Your task to perform on an android device: uninstall "Life360: Find Family & Friends" Image 0: 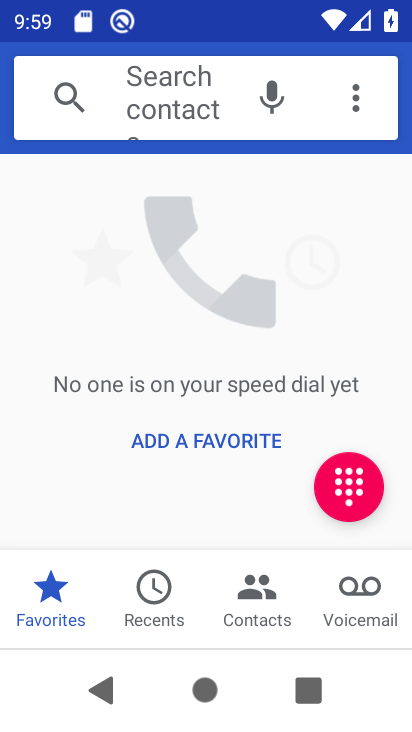
Step 0: press home button
Your task to perform on an android device: uninstall "Life360: Find Family & Friends" Image 1: 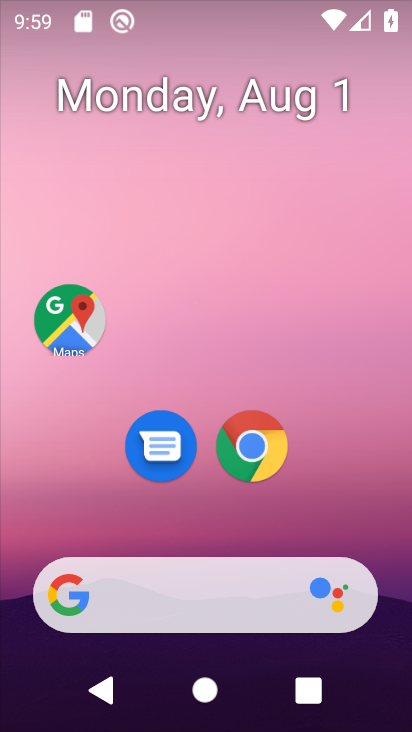
Step 1: drag from (206, 516) to (228, 61)
Your task to perform on an android device: uninstall "Life360: Find Family & Friends" Image 2: 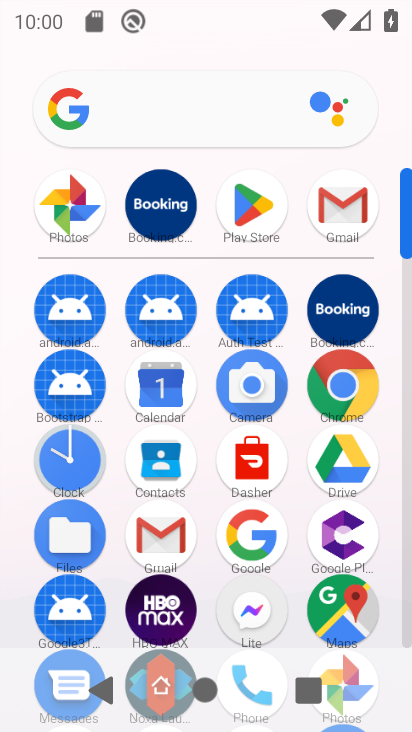
Step 2: click (248, 178)
Your task to perform on an android device: uninstall "Life360: Find Family & Friends" Image 3: 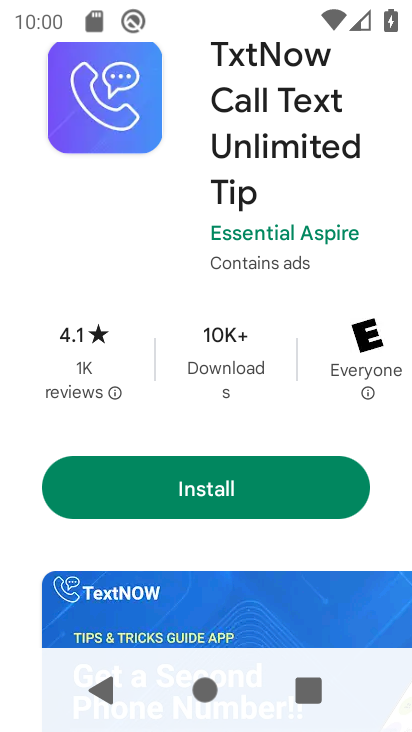
Step 3: drag from (264, 236) to (316, 583)
Your task to perform on an android device: uninstall "Life360: Find Family & Friends" Image 4: 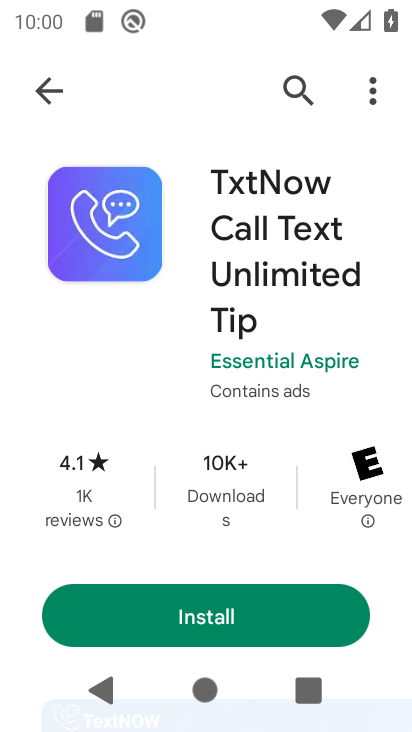
Step 4: click (300, 99)
Your task to perform on an android device: uninstall "Life360: Find Family & Friends" Image 5: 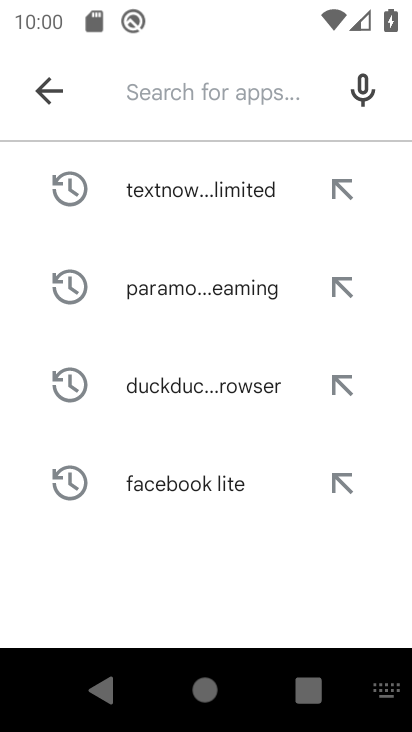
Step 5: type "Life360: Find Family & Friends"
Your task to perform on an android device: uninstall "Life360: Find Family & Friends" Image 6: 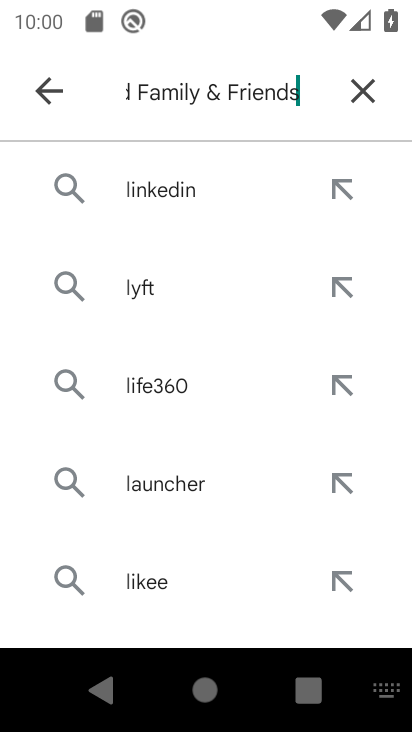
Step 6: type ""
Your task to perform on an android device: uninstall "Life360: Find Family & Friends" Image 7: 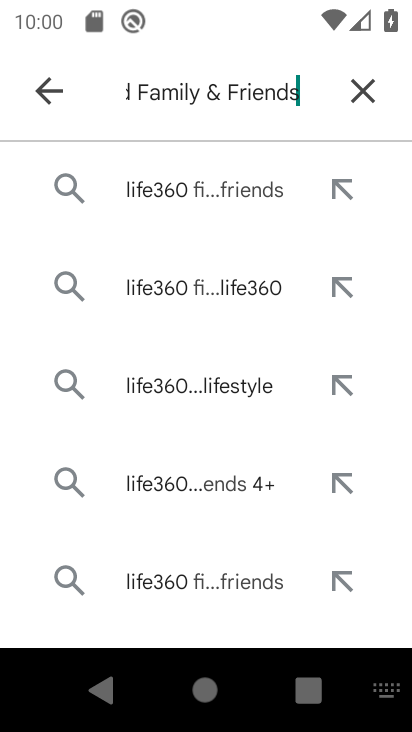
Step 7: click (203, 178)
Your task to perform on an android device: uninstall "Life360: Find Family & Friends" Image 8: 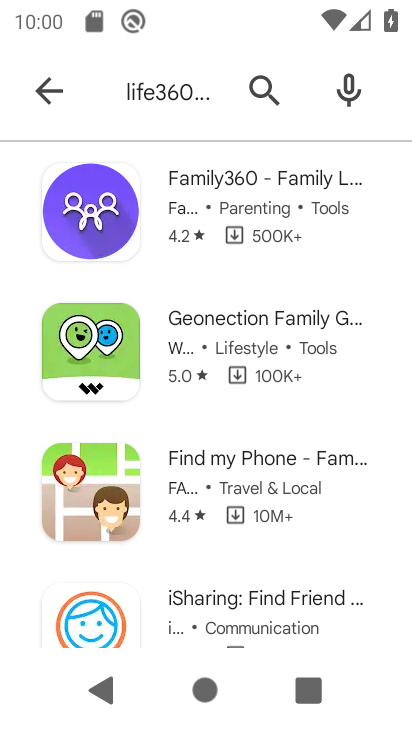
Step 8: task complete